Your task to perform on an android device: Add alienware aurora to the cart on bestbuy.com, then select checkout. Image 0: 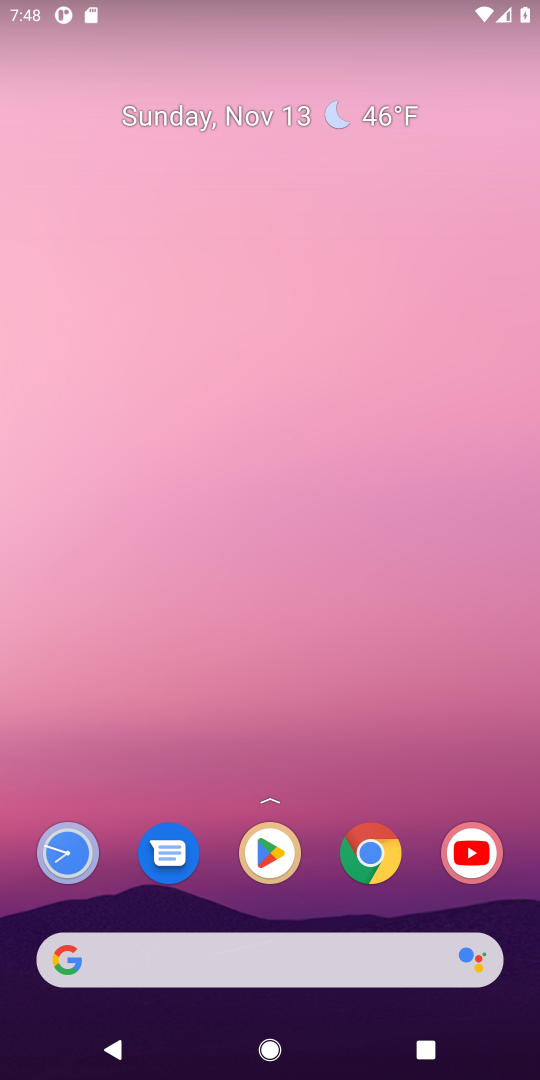
Step 0: press home button
Your task to perform on an android device: Add alienware aurora to the cart on bestbuy.com, then select checkout. Image 1: 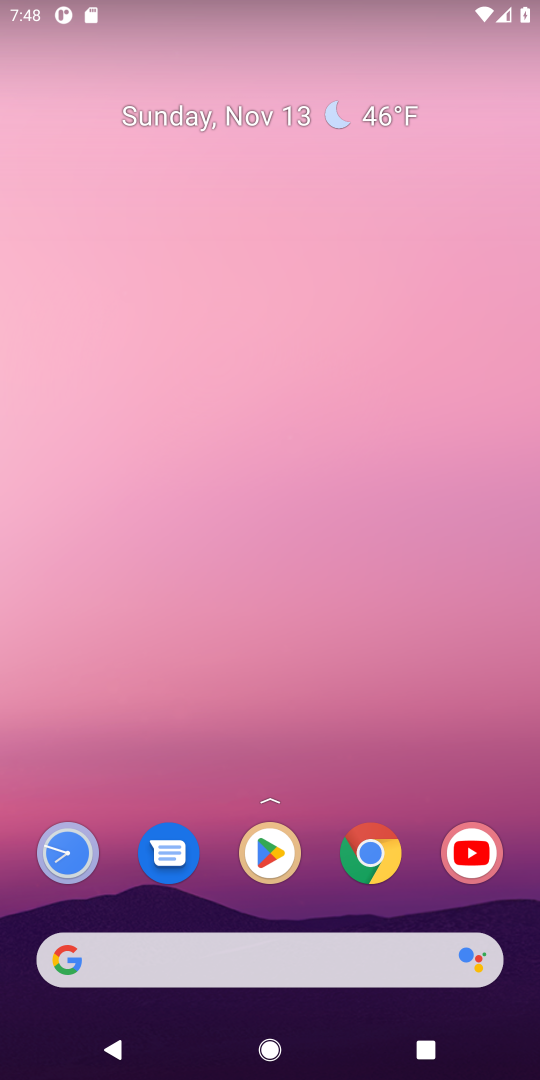
Step 1: click (98, 953)
Your task to perform on an android device: Add alienware aurora to the cart on bestbuy.com, then select checkout. Image 2: 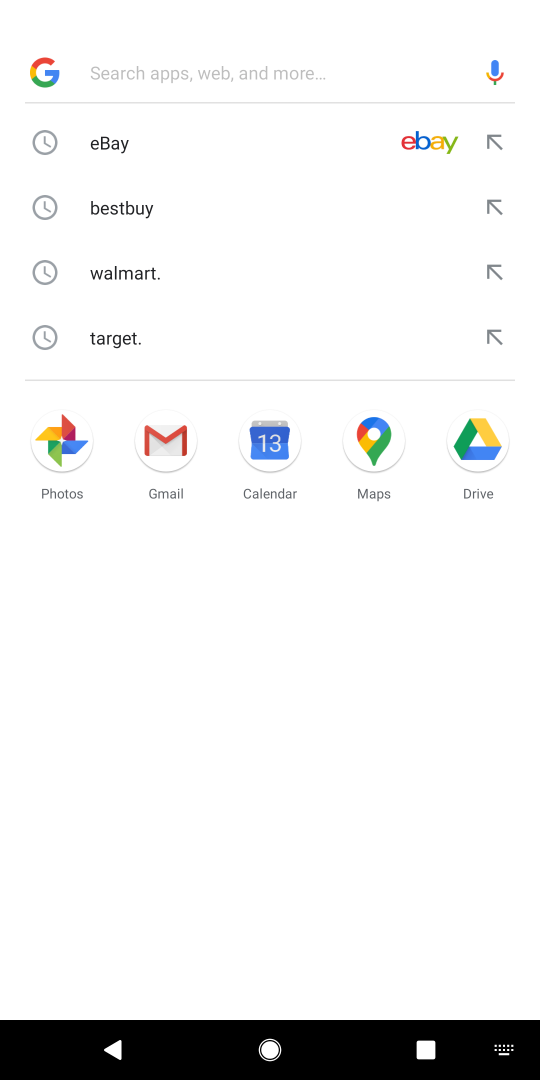
Step 2: type "bestbuy.com"
Your task to perform on an android device: Add alienware aurora to the cart on bestbuy.com, then select checkout. Image 3: 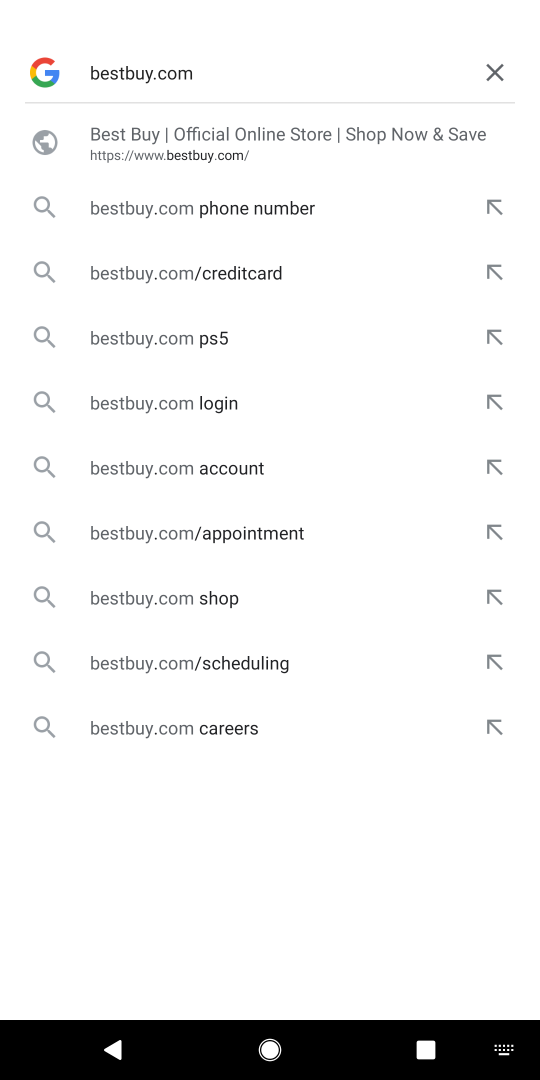
Step 3: press enter
Your task to perform on an android device: Add alienware aurora to the cart on bestbuy.com, then select checkout. Image 4: 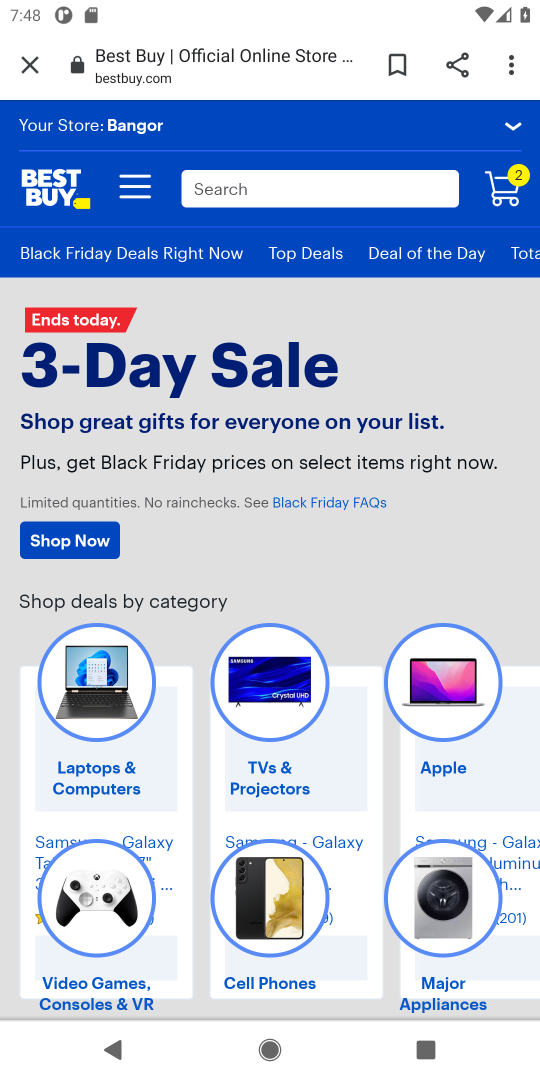
Step 4: click (211, 185)
Your task to perform on an android device: Add alienware aurora to the cart on bestbuy.com, then select checkout. Image 5: 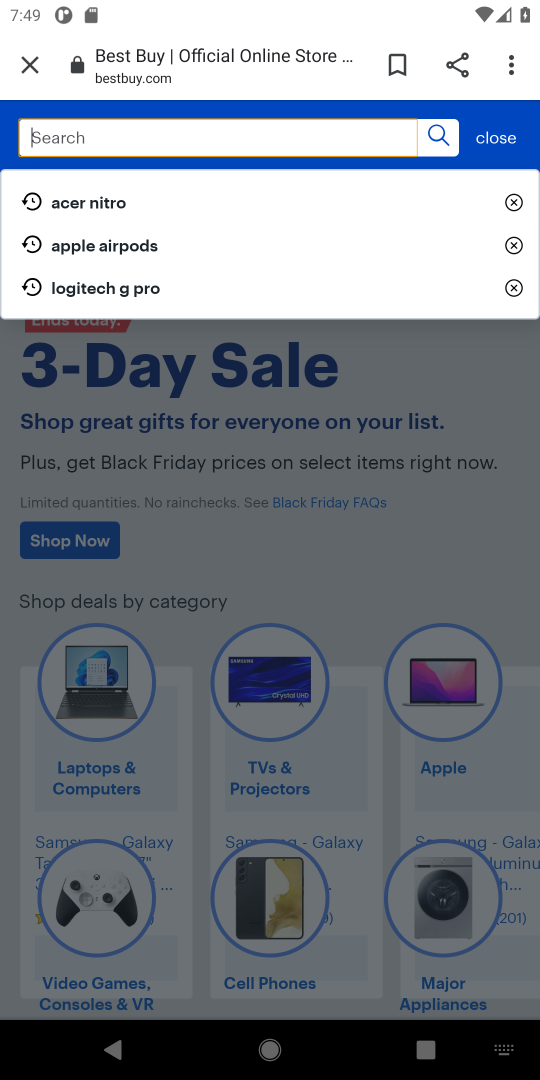
Step 5: press enter
Your task to perform on an android device: Add alienware aurora to the cart on bestbuy.com, then select checkout. Image 6: 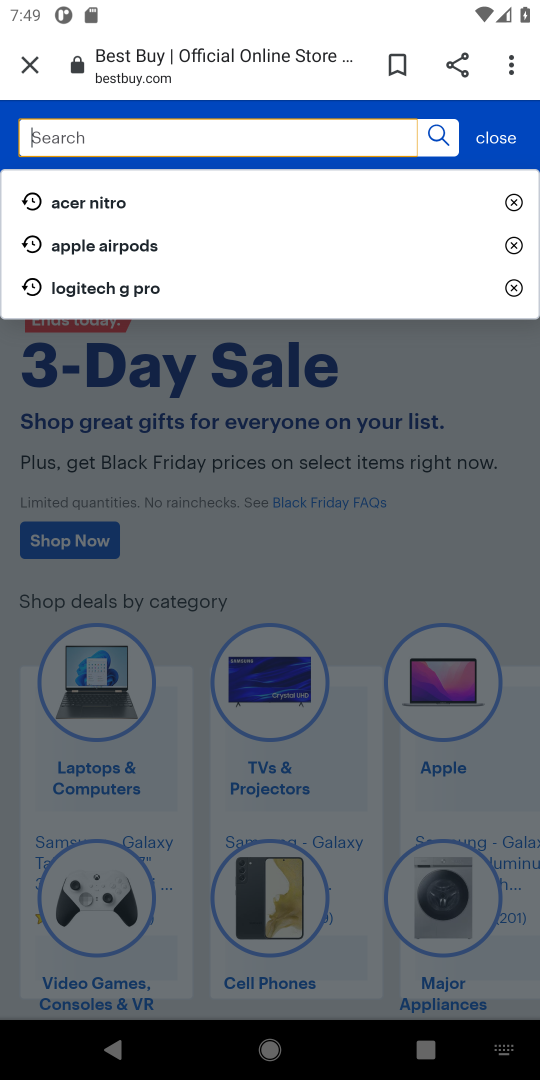
Step 6: type "alienware aurora "
Your task to perform on an android device: Add alienware aurora to the cart on bestbuy.com, then select checkout. Image 7: 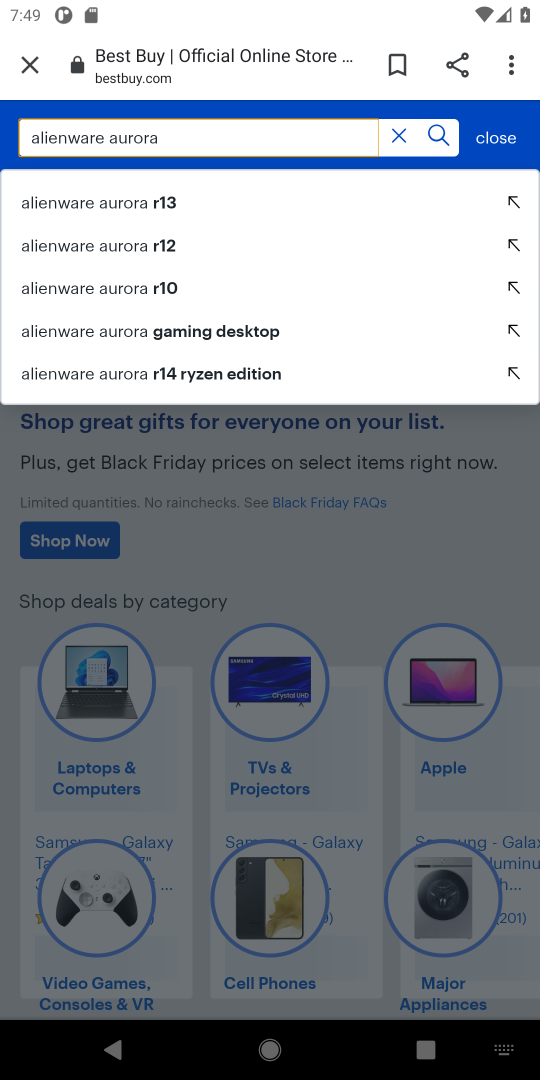
Step 7: press enter
Your task to perform on an android device: Add alienware aurora to the cart on bestbuy.com, then select checkout. Image 8: 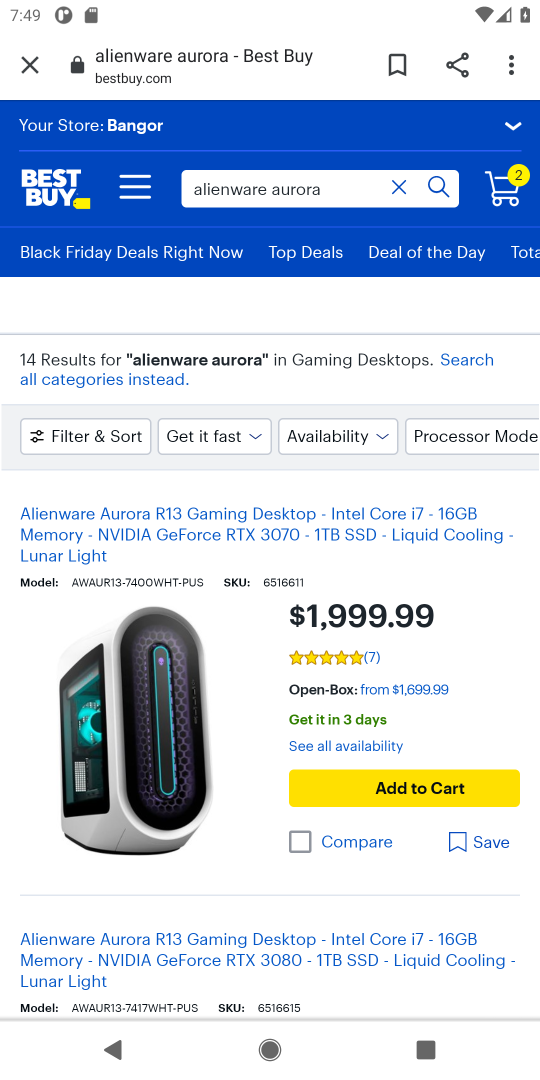
Step 8: click (429, 794)
Your task to perform on an android device: Add alienware aurora to the cart on bestbuy.com, then select checkout. Image 9: 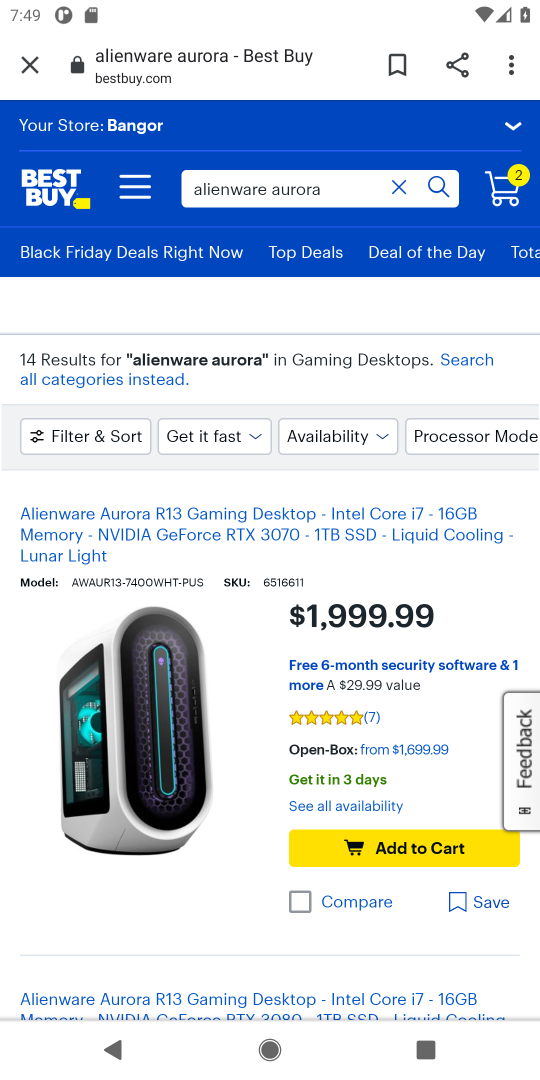
Step 9: click (402, 848)
Your task to perform on an android device: Add alienware aurora to the cart on bestbuy.com, then select checkout. Image 10: 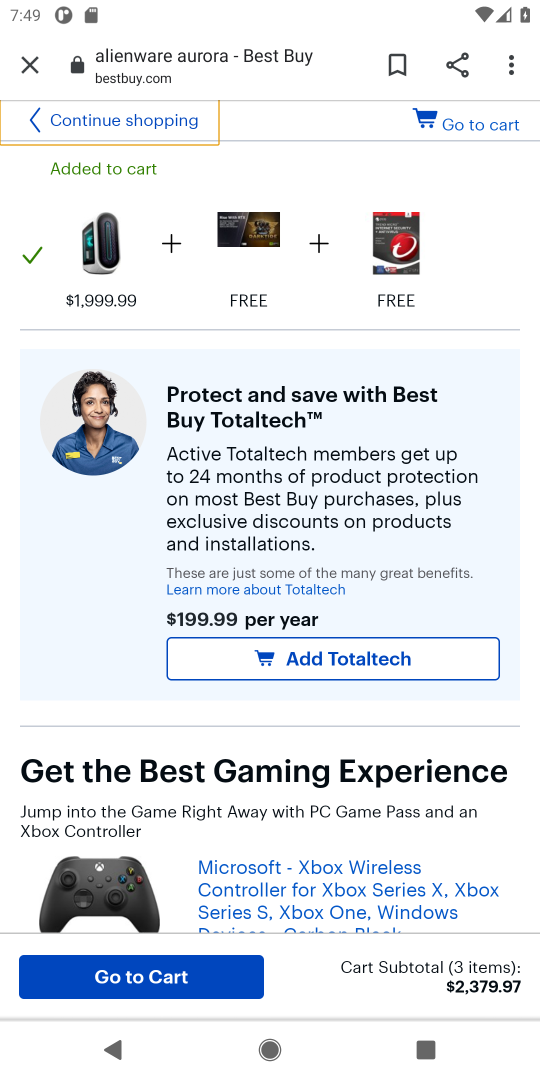
Step 10: click (139, 982)
Your task to perform on an android device: Add alienware aurora to the cart on bestbuy.com, then select checkout. Image 11: 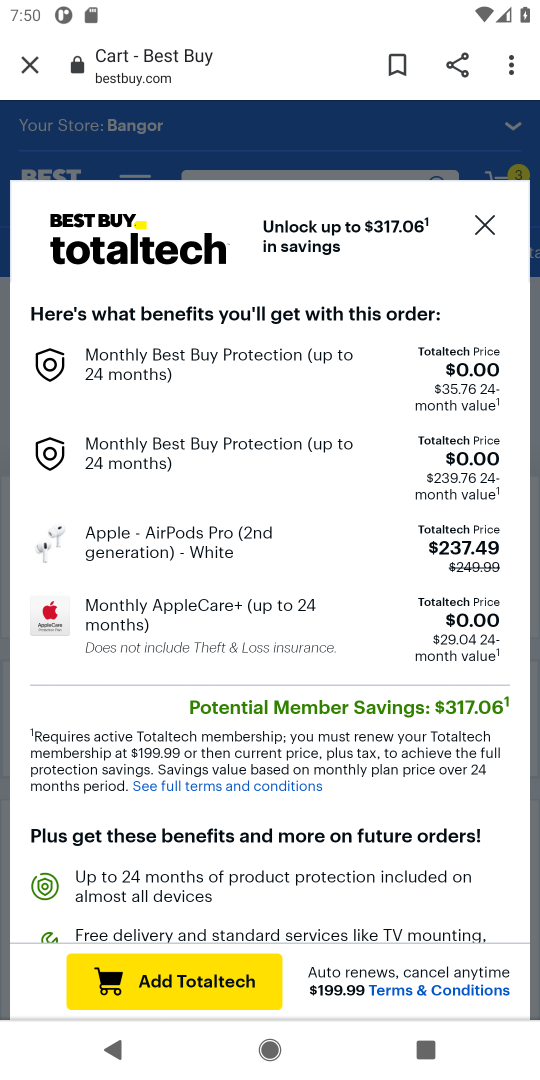
Step 11: click (477, 230)
Your task to perform on an android device: Add alienware aurora to the cart on bestbuy.com, then select checkout. Image 12: 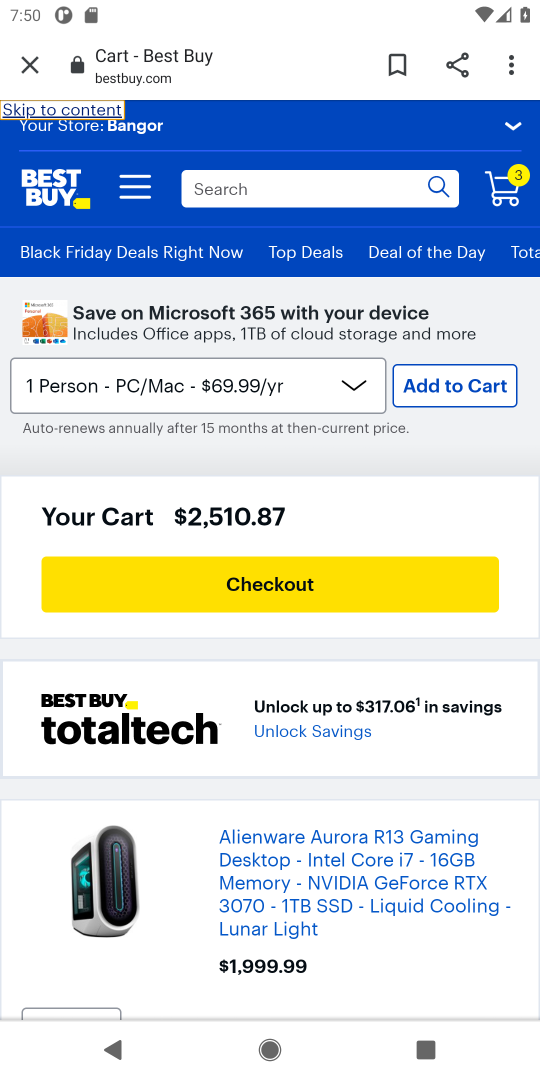
Step 12: click (262, 588)
Your task to perform on an android device: Add alienware aurora to the cart on bestbuy.com, then select checkout. Image 13: 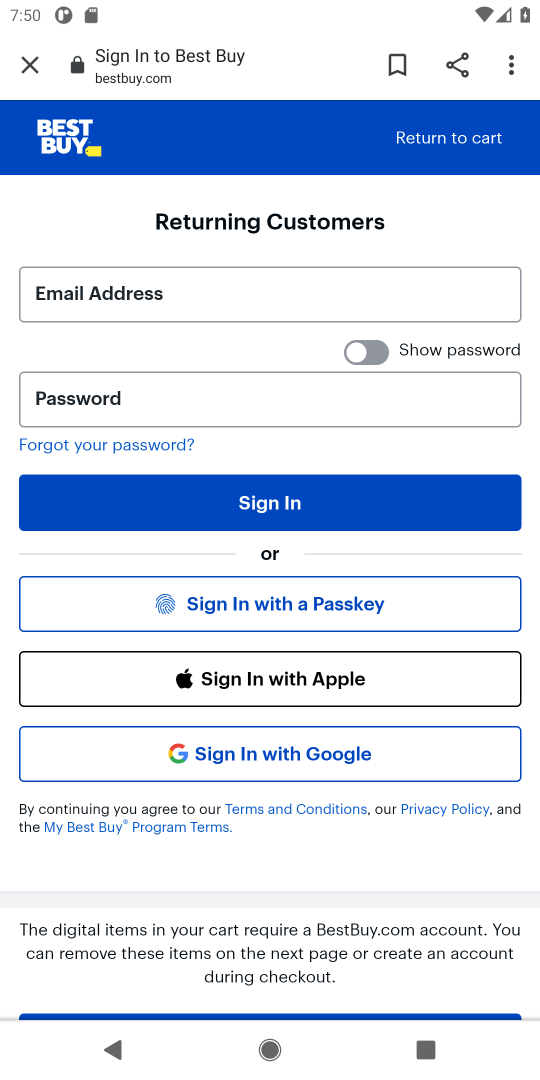
Step 13: task complete